Your task to perform on an android device: add a contact in the contacts app Image 0: 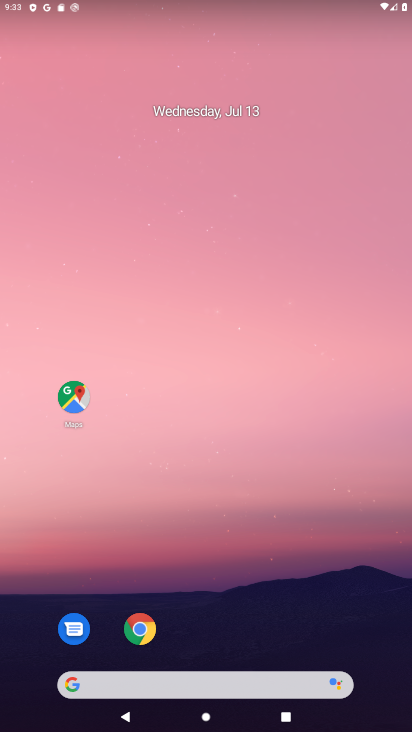
Step 0: drag from (258, 640) to (278, 121)
Your task to perform on an android device: add a contact in the contacts app Image 1: 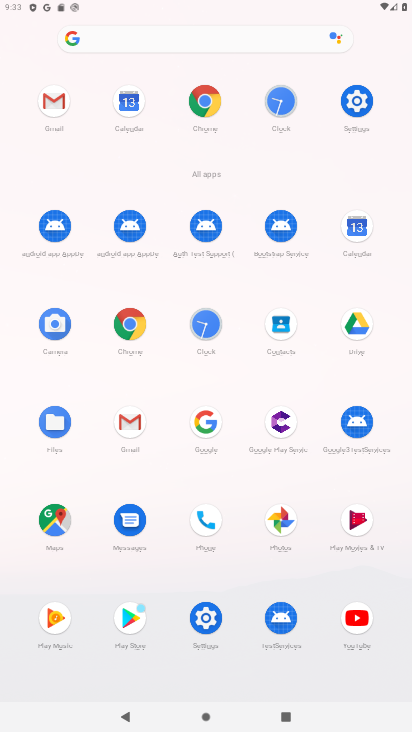
Step 1: click (141, 106)
Your task to perform on an android device: add a contact in the contacts app Image 2: 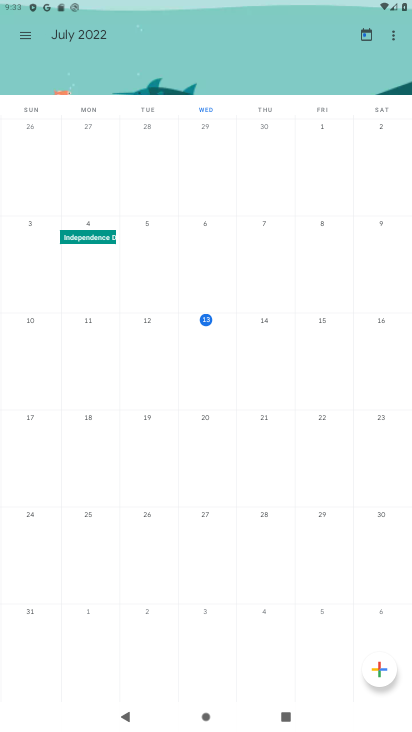
Step 2: press back button
Your task to perform on an android device: add a contact in the contacts app Image 3: 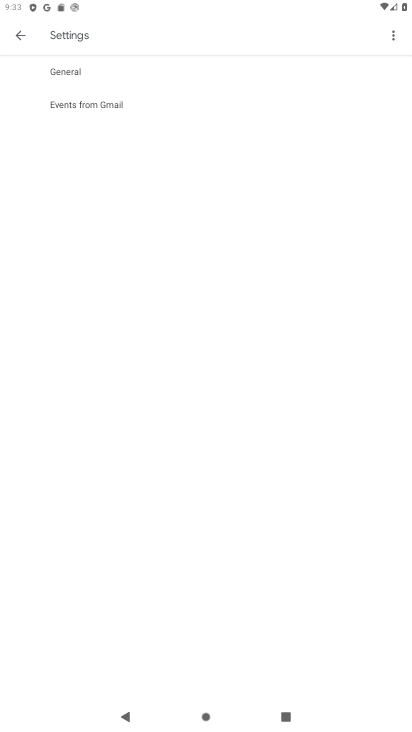
Step 3: click (194, 710)
Your task to perform on an android device: add a contact in the contacts app Image 4: 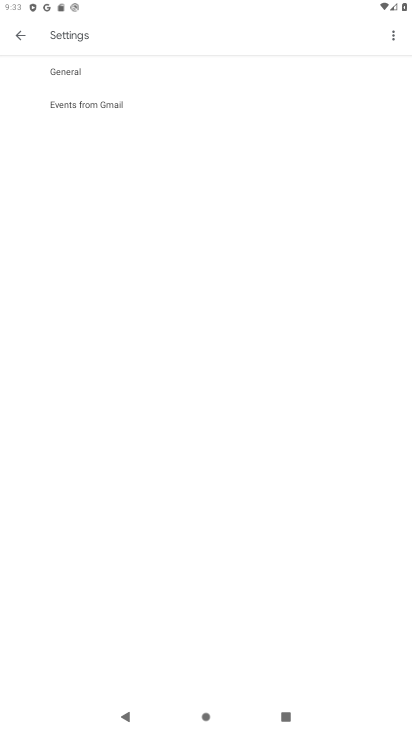
Step 4: click (195, 713)
Your task to perform on an android device: add a contact in the contacts app Image 5: 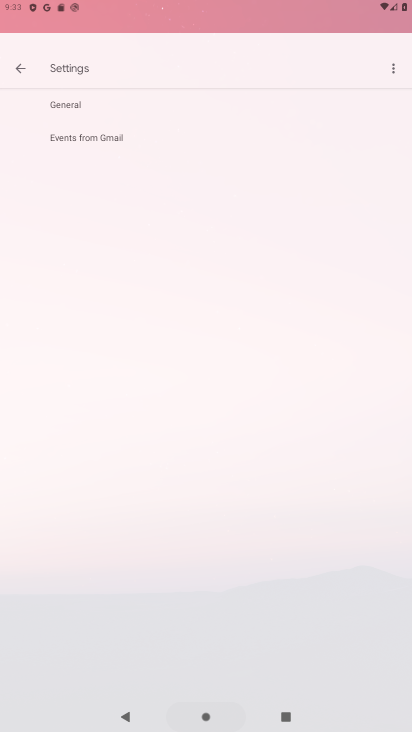
Step 5: click (201, 713)
Your task to perform on an android device: add a contact in the contacts app Image 6: 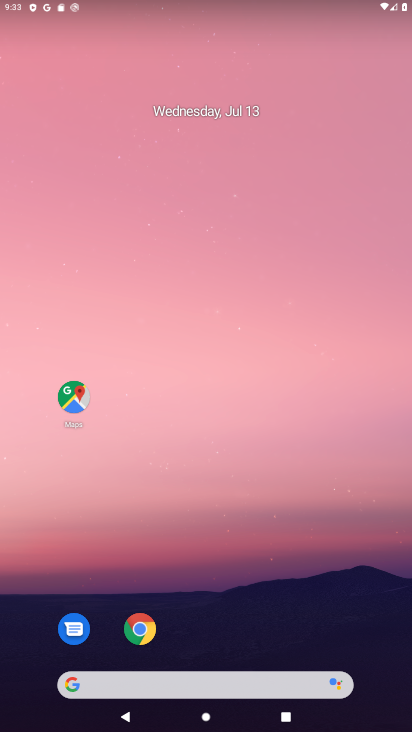
Step 6: drag from (257, 652) to (256, 143)
Your task to perform on an android device: add a contact in the contacts app Image 7: 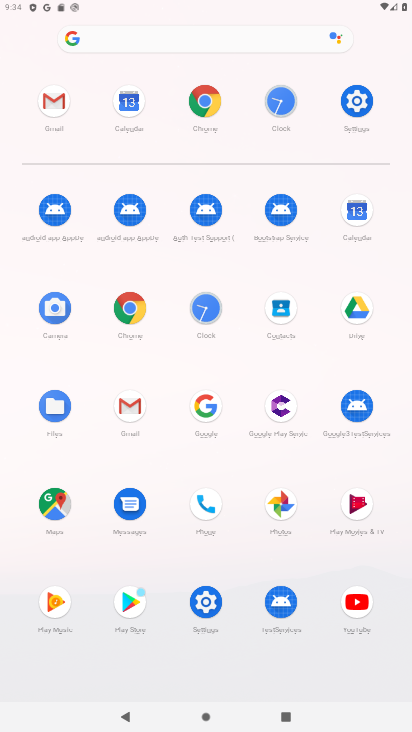
Step 7: click (360, 213)
Your task to perform on an android device: add a contact in the contacts app Image 8: 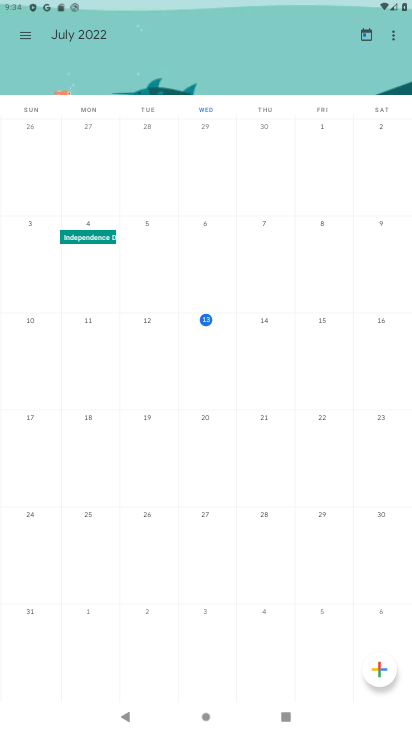
Step 8: press back button
Your task to perform on an android device: add a contact in the contacts app Image 9: 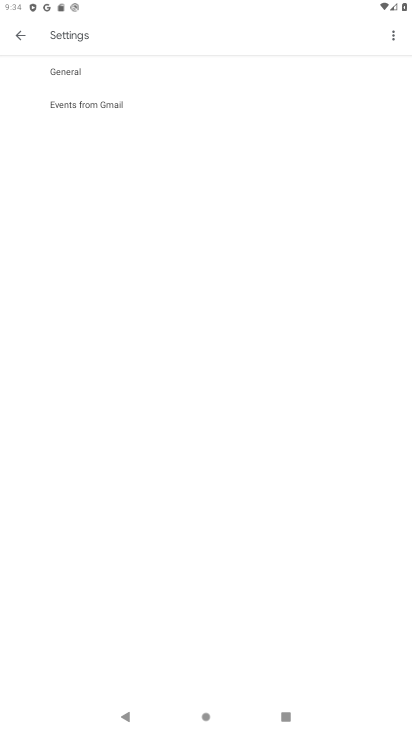
Step 9: press back button
Your task to perform on an android device: add a contact in the contacts app Image 10: 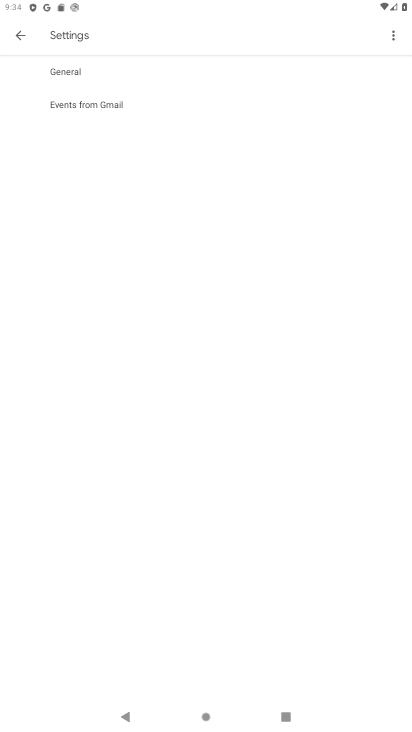
Step 10: press back button
Your task to perform on an android device: add a contact in the contacts app Image 11: 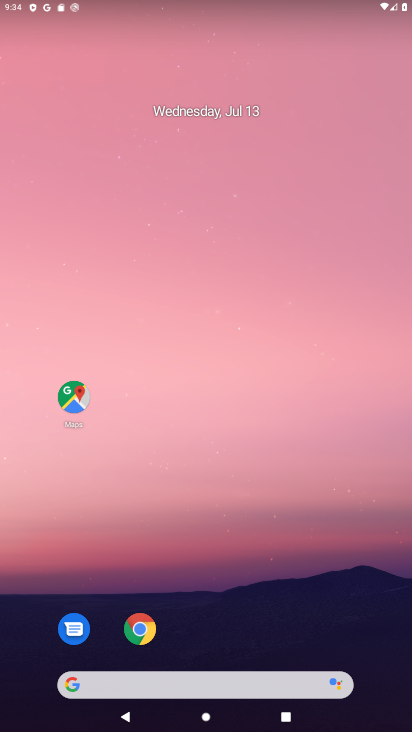
Step 11: drag from (274, 608) to (237, 57)
Your task to perform on an android device: add a contact in the contacts app Image 12: 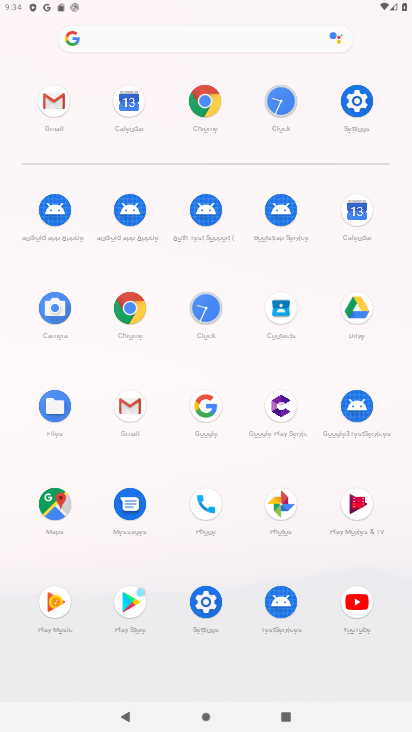
Step 12: click (266, 308)
Your task to perform on an android device: add a contact in the contacts app Image 13: 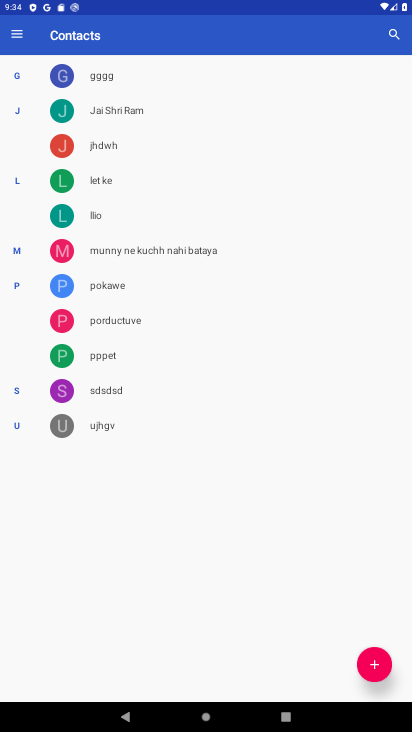
Step 13: click (374, 661)
Your task to perform on an android device: add a contact in the contacts app Image 14: 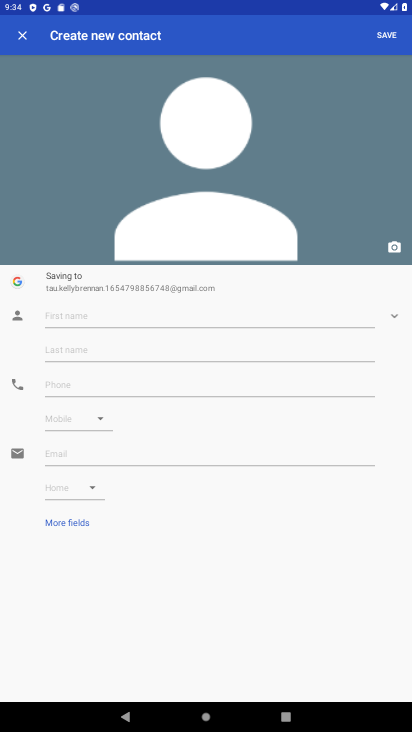
Step 14: click (231, 305)
Your task to perform on an android device: add a contact in the contacts app Image 15: 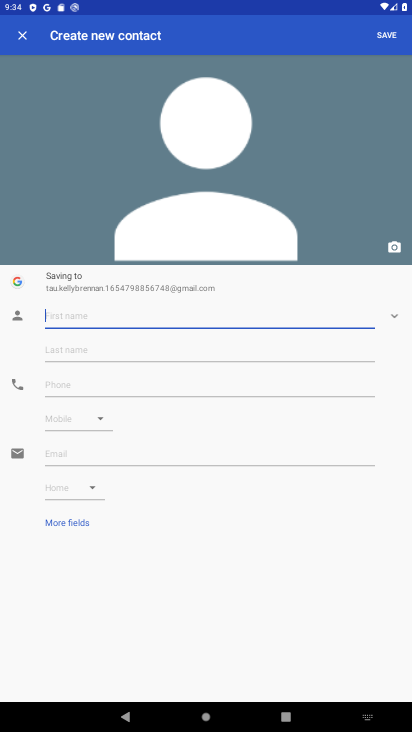
Step 15: type ",nk"
Your task to perform on an android device: add a contact in the contacts app Image 16: 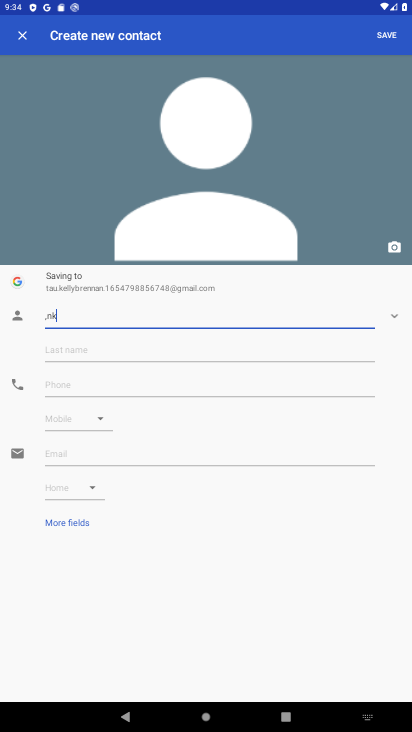
Step 16: click (222, 349)
Your task to perform on an android device: add a contact in the contacts app Image 17: 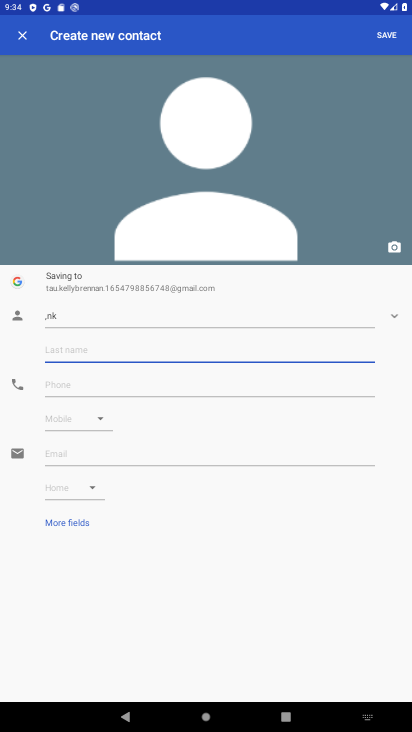
Step 17: type "  mhvj"
Your task to perform on an android device: add a contact in the contacts app Image 18: 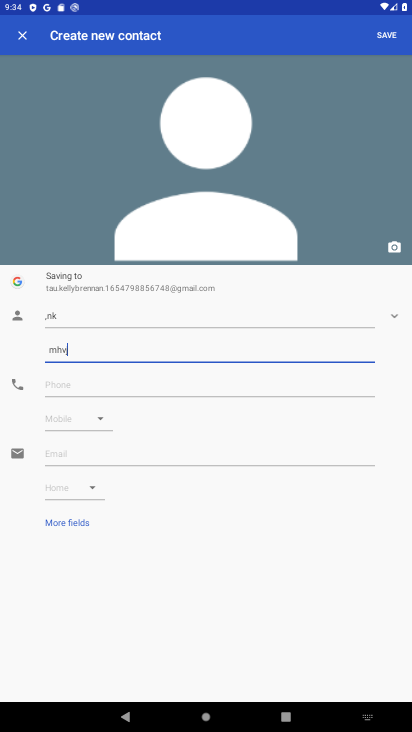
Step 18: click (245, 374)
Your task to perform on an android device: add a contact in the contacts app Image 19: 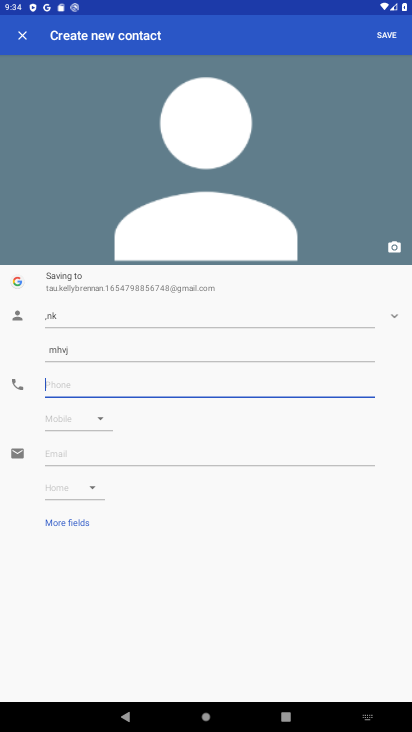
Step 19: type "87658765"
Your task to perform on an android device: add a contact in the contacts app Image 20: 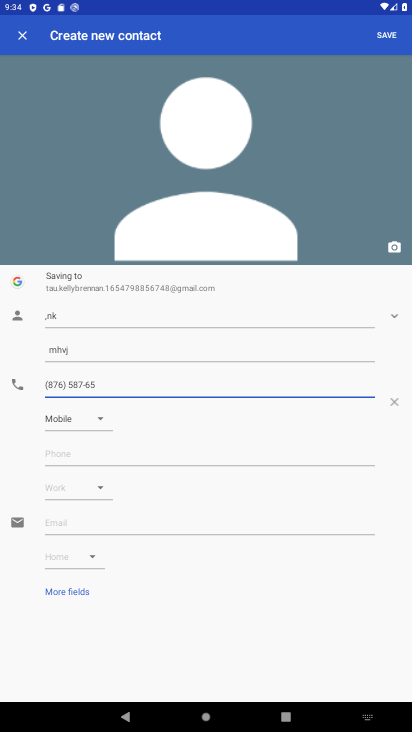
Step 20: click (401, 34)
Your task to perform on an android device: add a contact in the contacts app Image 21: 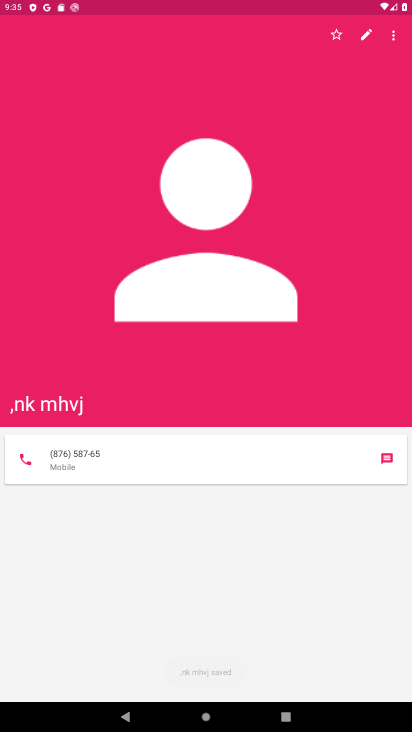
Step 21: task complete